Your task to perform on an android device: Open calendar and show me the third week of next month Image 0: 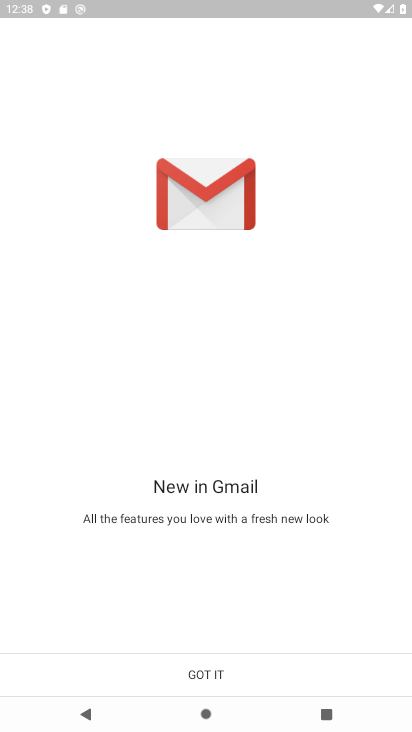
Step 0: press home button
Your task to perform on an android device: Open calendar and show me the third week of next month Image 1: 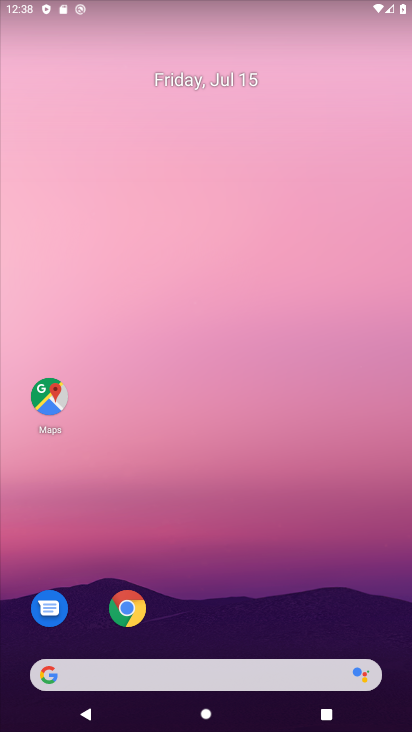
Step 1: drag from (230, 666) to (220, 132)
Your task to perform on an android device: Open calendar and show me the third week of next month Image 2: 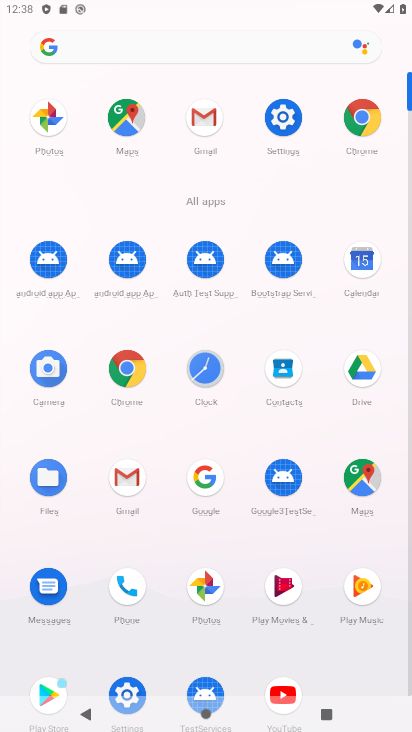
Step 2: click (360, 258)
Your task to perform on an android device: Open calendar and show me the third week of next month Image 3: 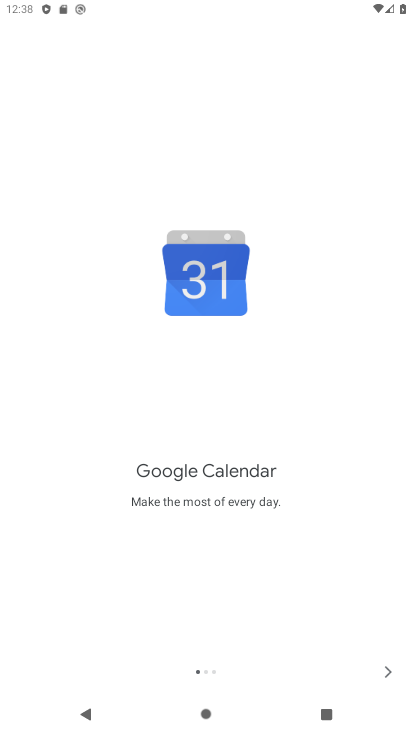
Step 3: click (393, 678)
Your task to perform on an android device: Open calendar and show me the third week of next month Image 4: 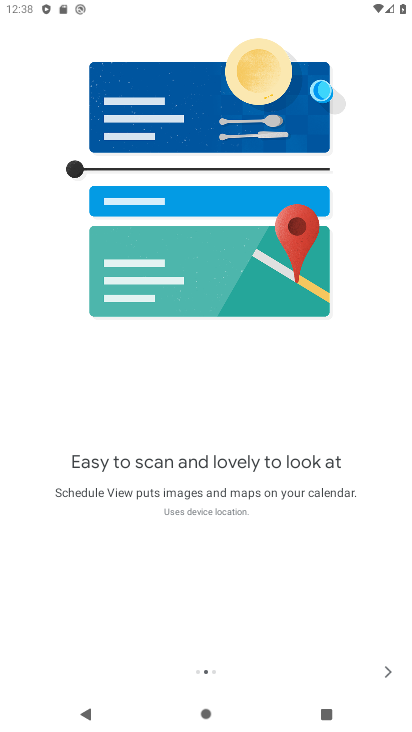
Step 4: click (391, 679)
Your task to perform on an android device: Open calendar and show me the third week of next month Image 5: 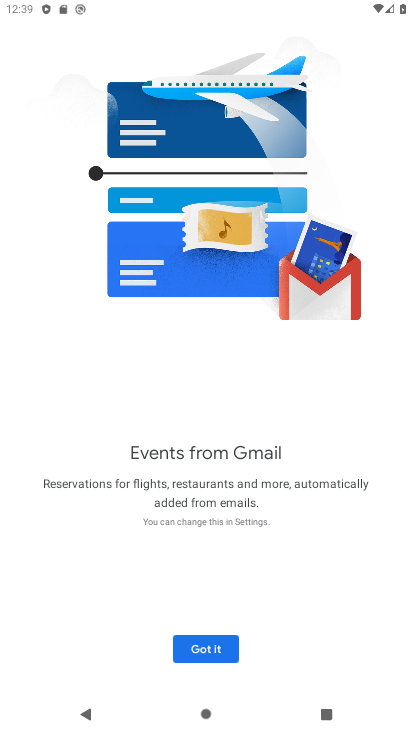
Step 5: click (201, 654)
Your task to perform on an android device: Open calendar and show me the third week of next month Image 6: 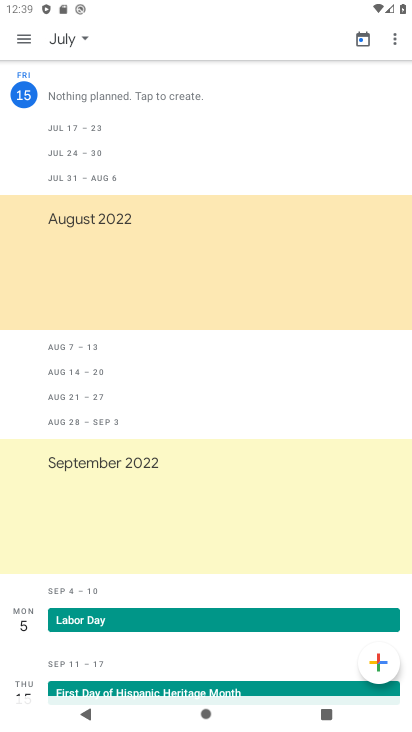
Step 6: click (26, 48)
Your task to perform on an android device: Open calendar and show me the third week of next month Image 7: 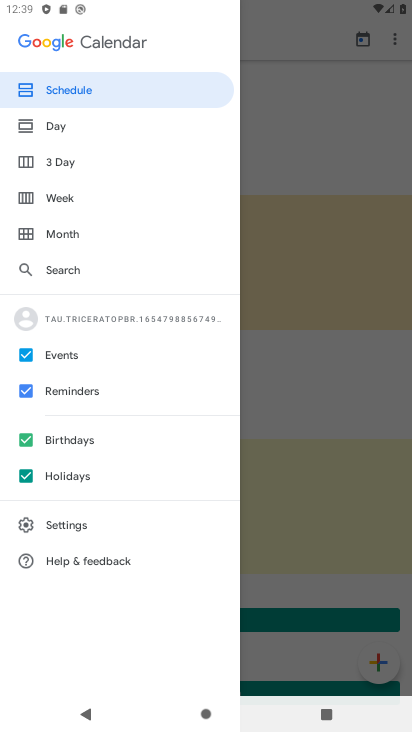
Step 7: click (70, 236)
Your task to perform on an android device: Open calendar and show me the third week of next month Image 8: 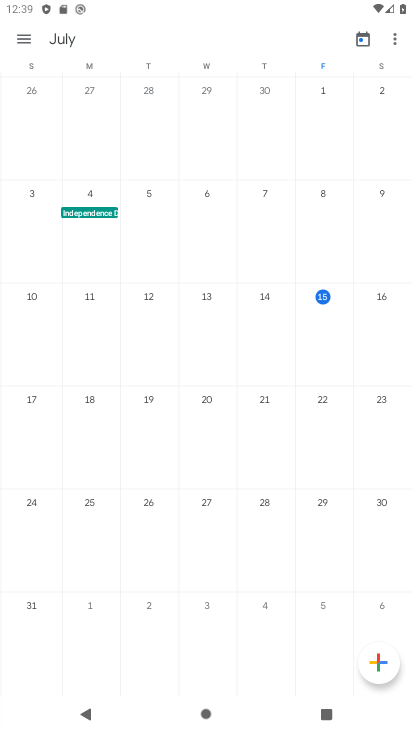
Step 8: task complete